Your task to perform on an android device: check android version Image 0: 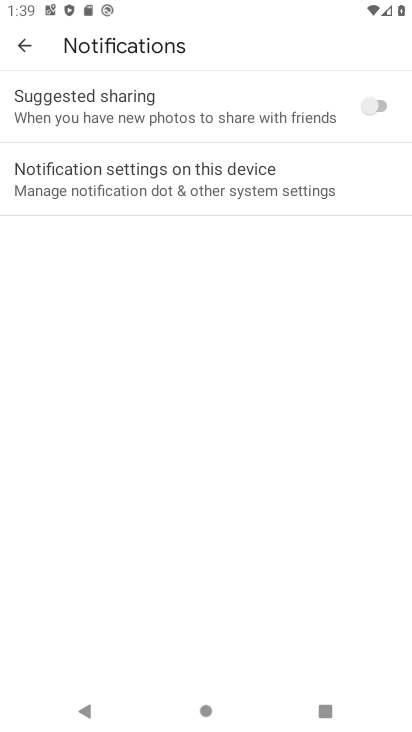
Step 0: press home button
Your task to perform on an android device: check android version Image 1: 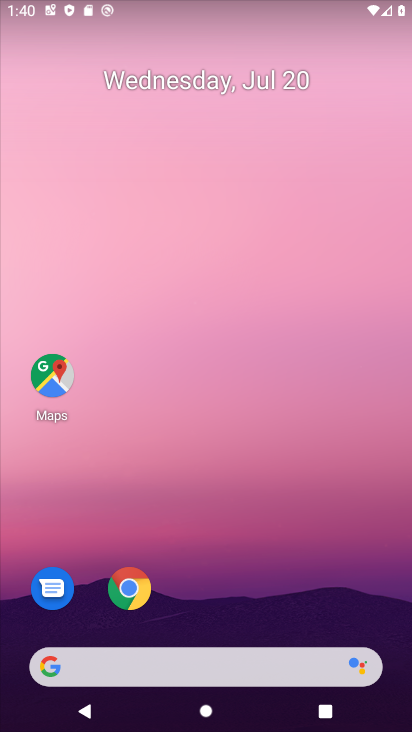
Step 1: drag from (319, 609) to (289, 8)
Your task to perform on an android device: check android version Image 2: 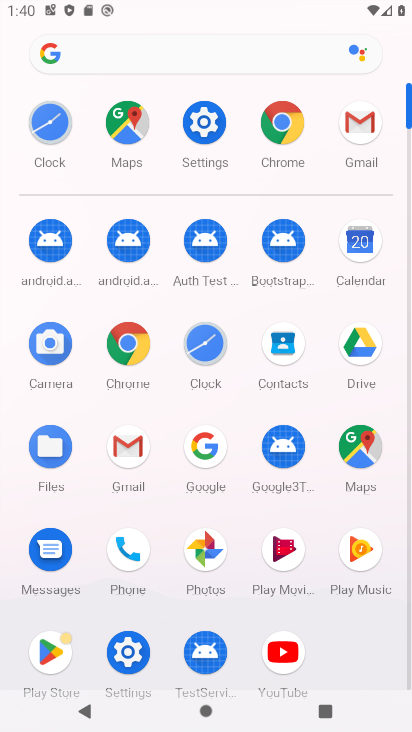
Step 2: click (200, 129)
Your task to perform on an android device: check android version Image 3: 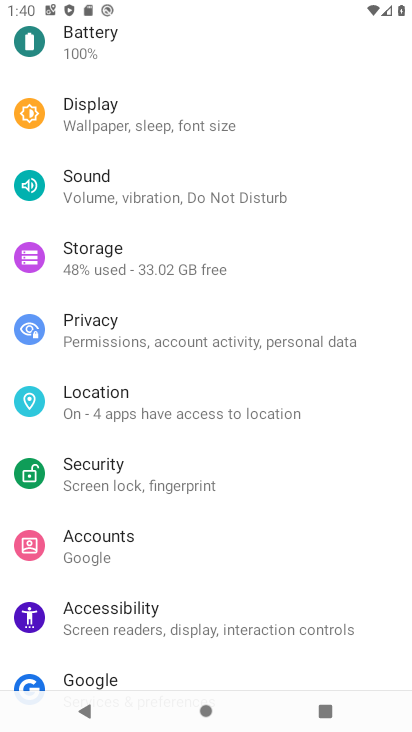
Step 3: drag from (211, 638) to (227, 5)
Your task to perform on an android device: check android version Image 4: 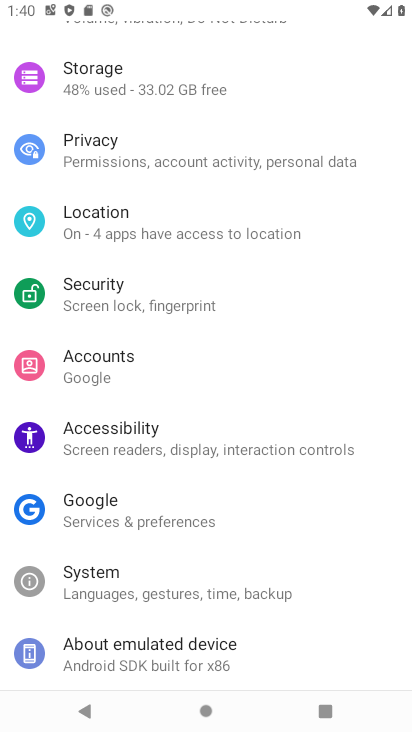
Step 4: click (153, 654)
Your task to perform on an android device: check android version Image 5: 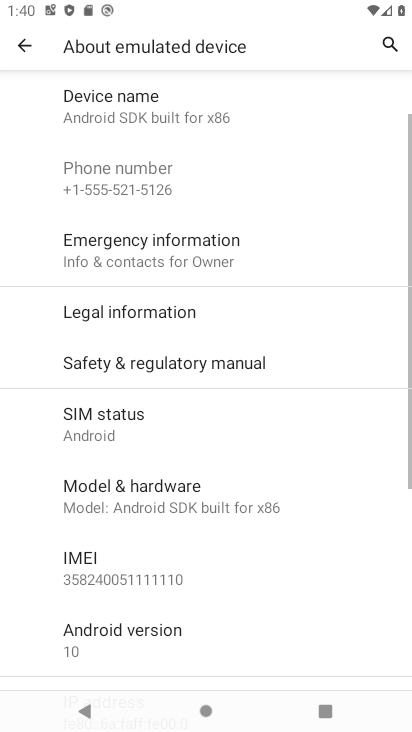
Step 5: click (109, 646)
Your task to perform on an android device: check android version Image 6: 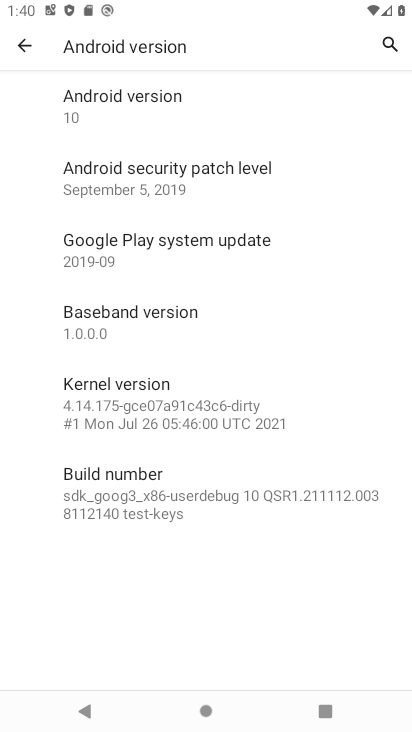
Step 6: task complete